Your task to perform on an android device: allow cookies in the chrome app Image 0: 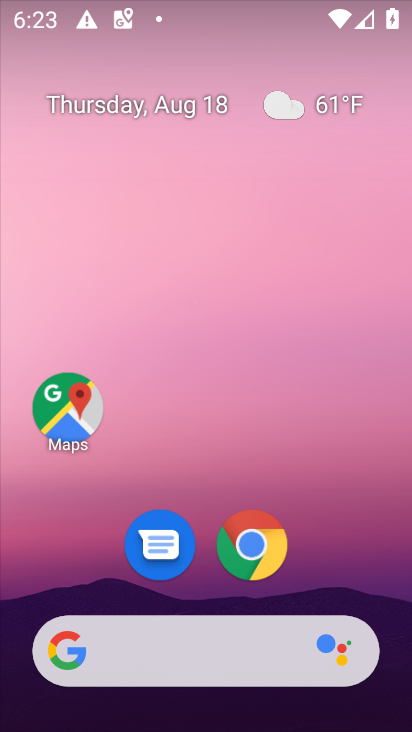
Step 0: click (257, 540)
Your task to perform on an android device: allow cookies in the chrome app Image 1: 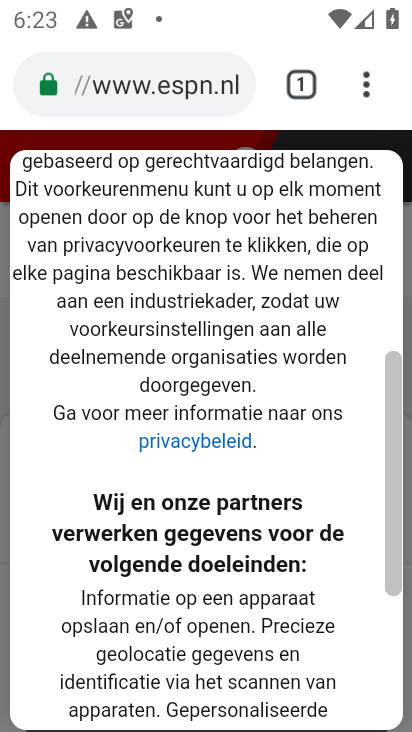
Step 1: click (368, 81)
Your task to perform on an android device: allow cookies in the chrome app Image 2: 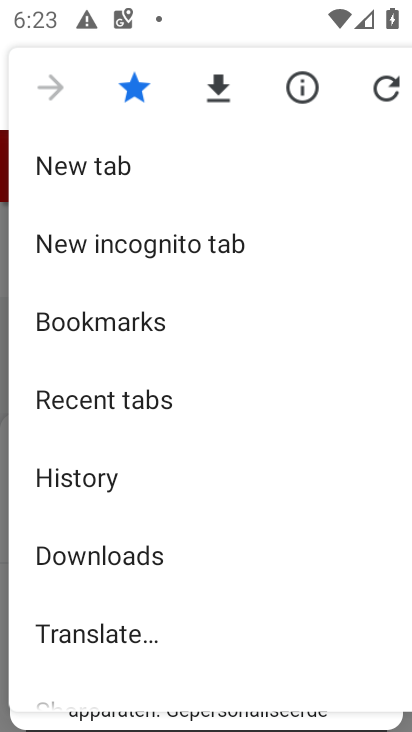
Step 2: drag from (235, 602) to (226, 366)
Your task to perform on an android device: allow cookies in the chrome app Image 3: 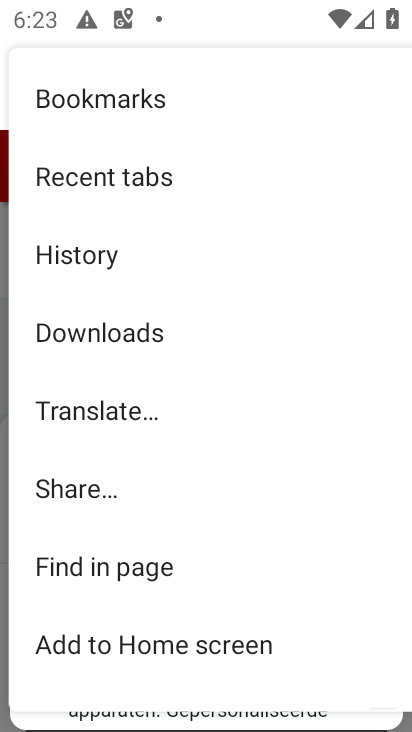
Step 3: drag from (231, 533) to (215, 314)
Your task to perform on an android device: allow cookies in the chrome app Image 4: 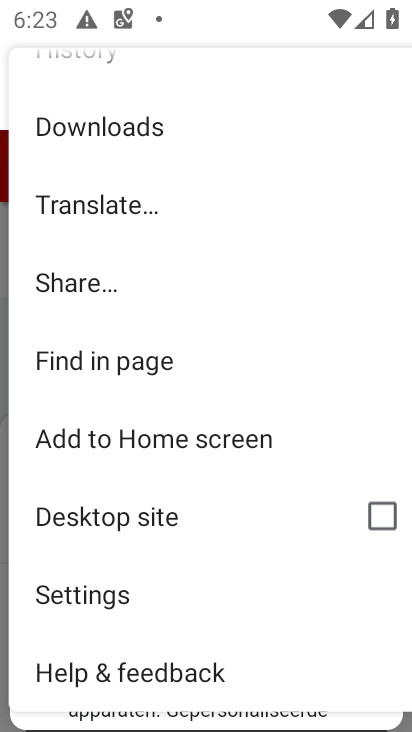
Step 4: click (114, 589)
Your task to perform on an android device: allow cookies in the chrome app Image 5: 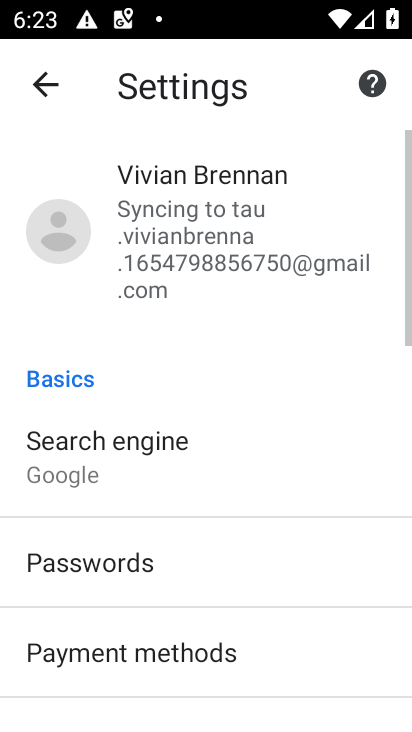
Step 5: drag from (217, 522) to (196, 298)
Your task to perform on an android device: allow cookies in the chrome app Image 6: 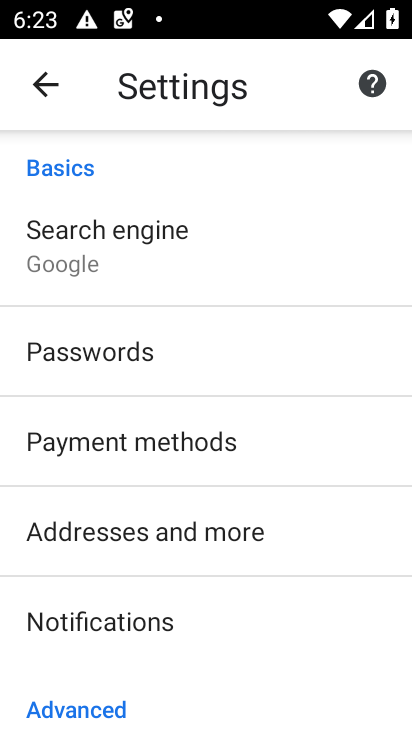
Step 6: drag from (256, 560) to (220, 153)
Your task to perform on an android device: allow cookies in the chrome app Image 7: 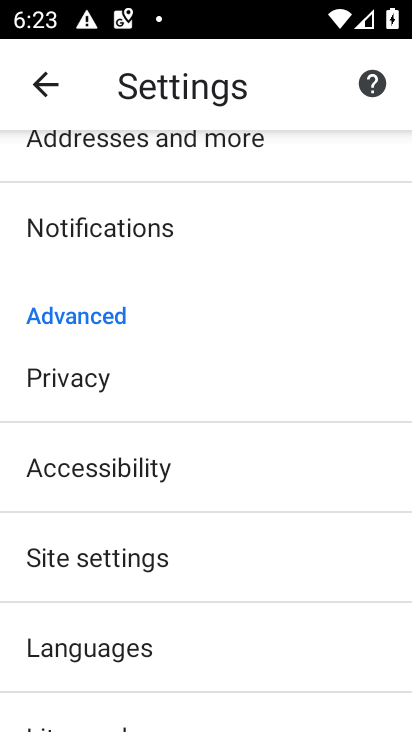
Step 7: click (124, 556)
Your task to perform on an android device: allow cookies in the chrome app Image 8: 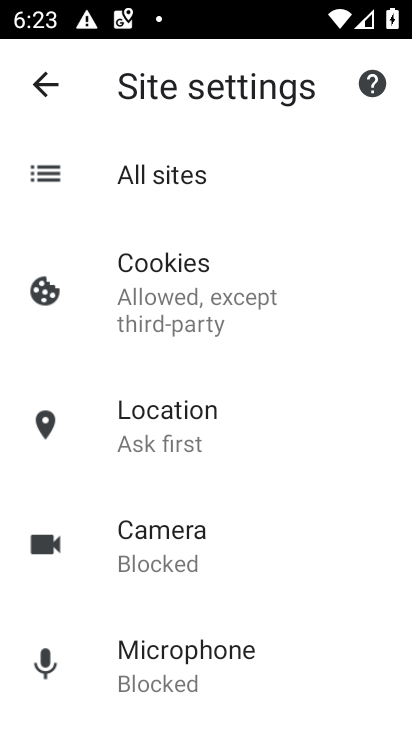
Step 8: click (167, 276)
Your task to perform on an android device: allow cookies in the chrome app Image 9: 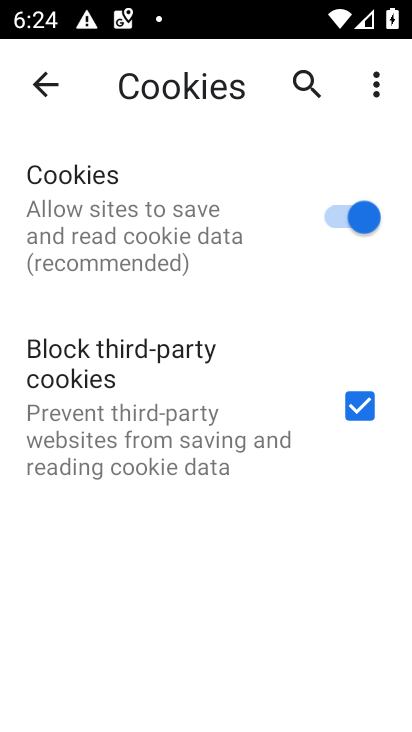
Step 9: task complete